Your task to perform on an android device: turn on bluetooth scan Image 0: 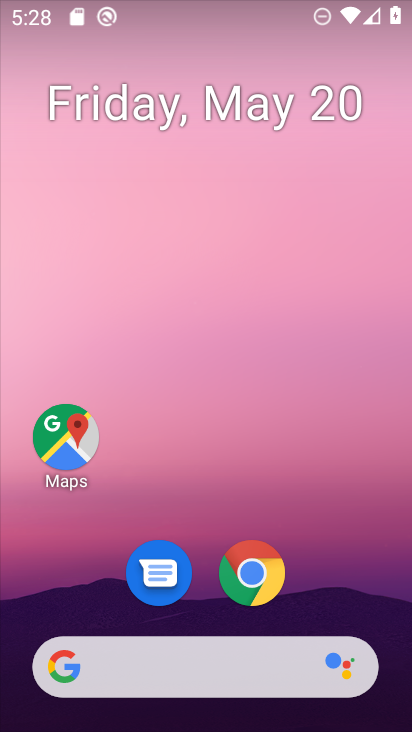
Step 0: drag from (324, 408) to (171, 35)
Your task to perform on an android device: turn on bluetooth scan Image 1: 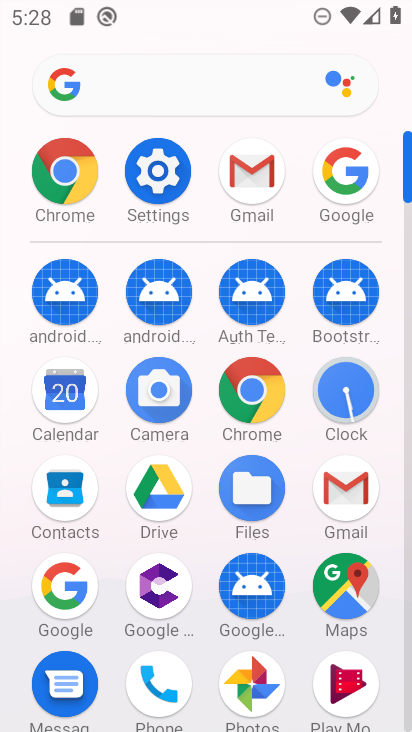
Step 1: click (136, 178)
Your task to perform on an android device: turn on bluetooth scan Image 2: 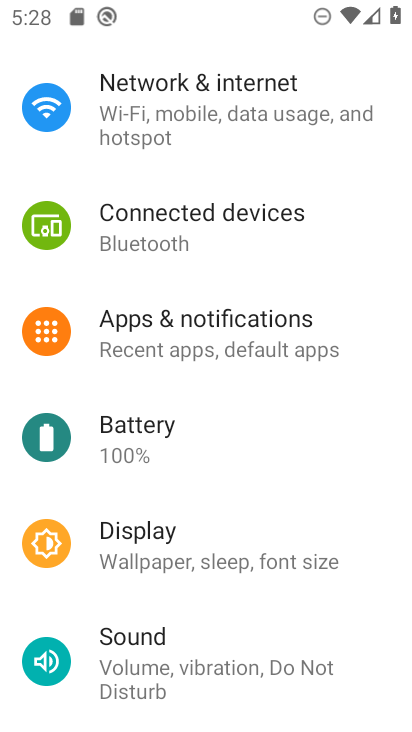
Step 2: drag from (218, 528) to (176, 185)
Your task to perform on an android device: turn on bluetooth scan Image 3: 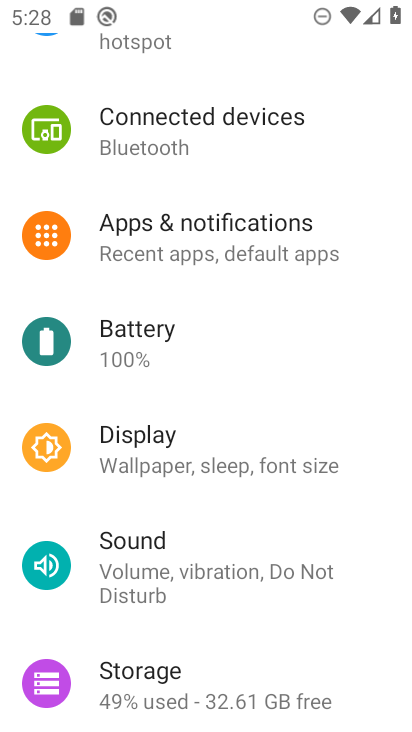
Step 3: drag from (230, 579) to (203, 183)
Your task to perform on an android device: turn on bluetooth scan Image 4: 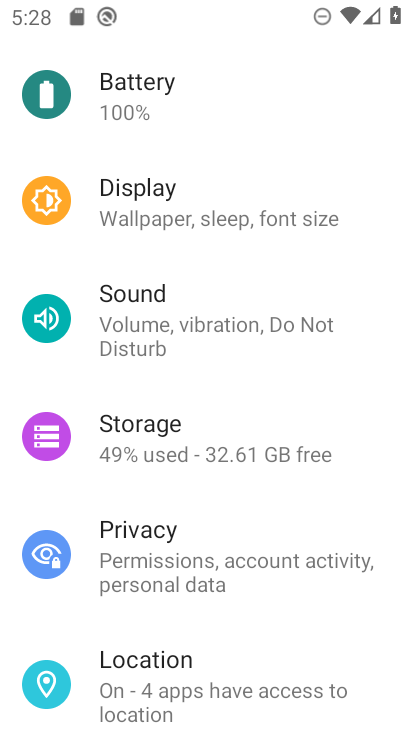
Step 4: click (229, 664)
Your task to perform on an android device: turn on bluetooth scan Image 5: 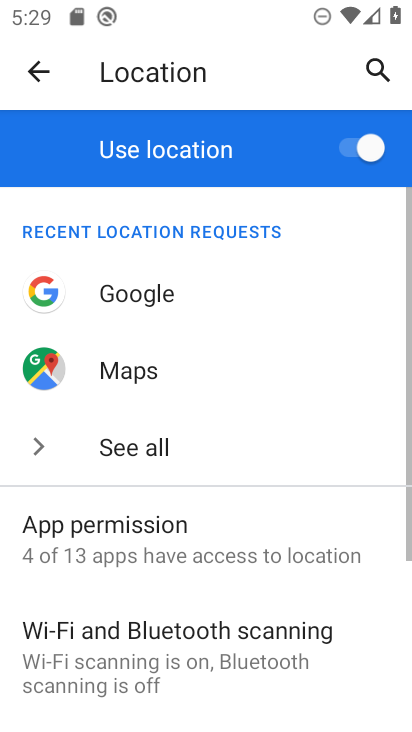
Step 5: click (269, 650)
Your task to perform on an android device: turn on bluetooth scan Image 6: 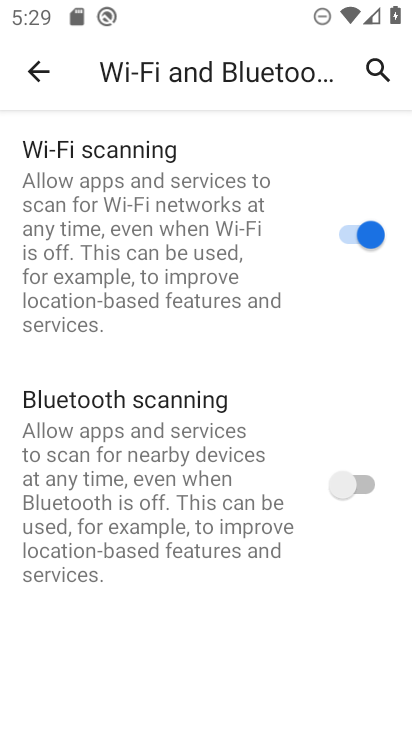
Step 6: click (356, 481)
Your task to perform on an android device: turn on bluetooth scan Image 7: 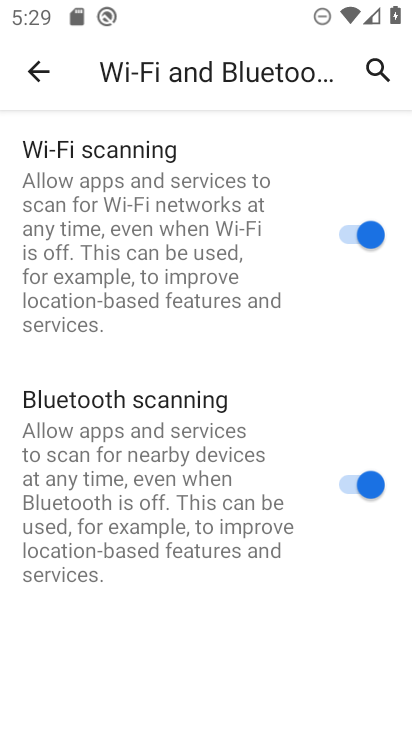
Step 7: task complete